Your task to perform on an android device: Is it going to rain this weekend? Image 0: 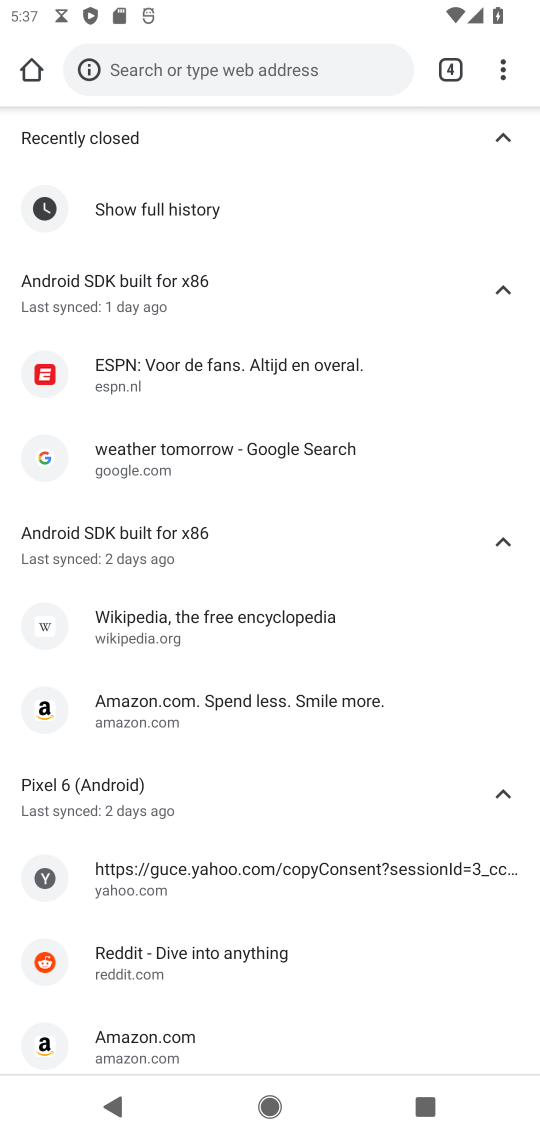
Step 0: click (516, 71)
Your task to perform on an android device: Is it going to rain this weekend? Image 1: 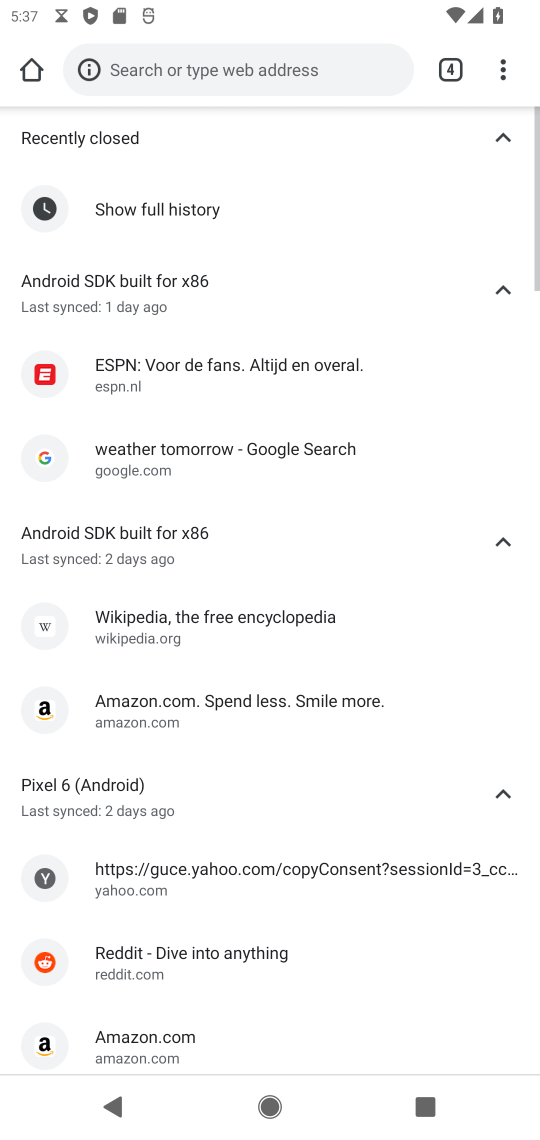
Step 1: click (506, 93)
Your task to perform on an android device: Is it going to rain this weekend? Image 2: 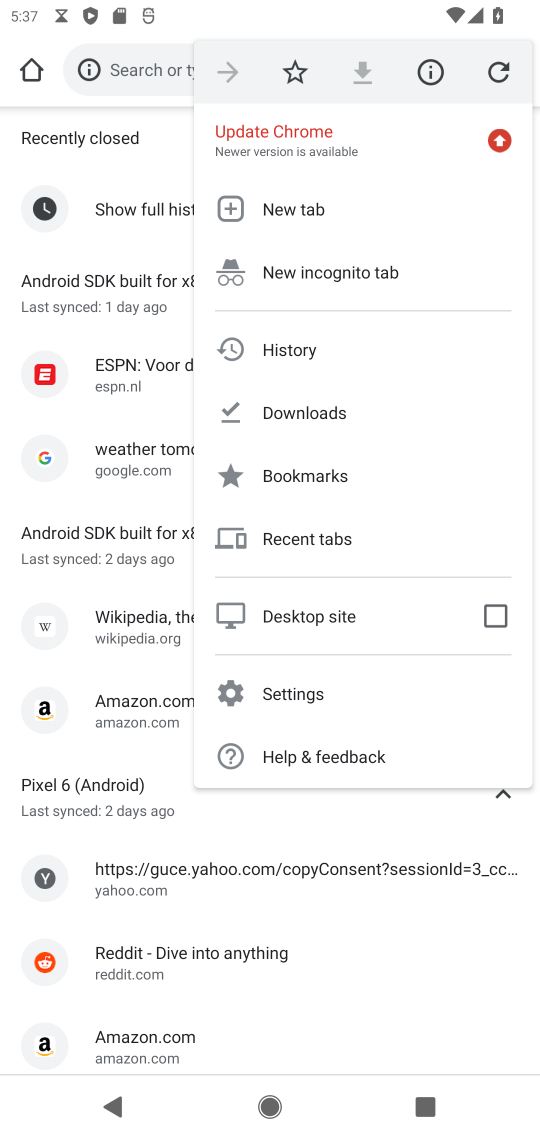
Step 2: click (130, 77)
Your task to perform on an android device: Is it going to rain this weekend? Image 3: 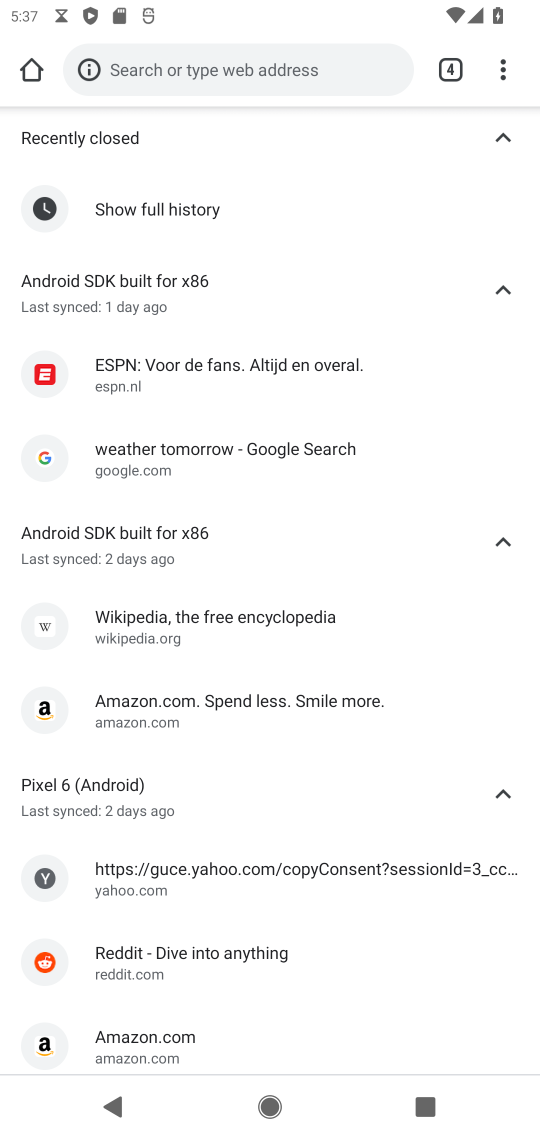
Step 3: click (267, 80)
Your task to perform on an android device: Is it going to rain this weekend? Image 4: 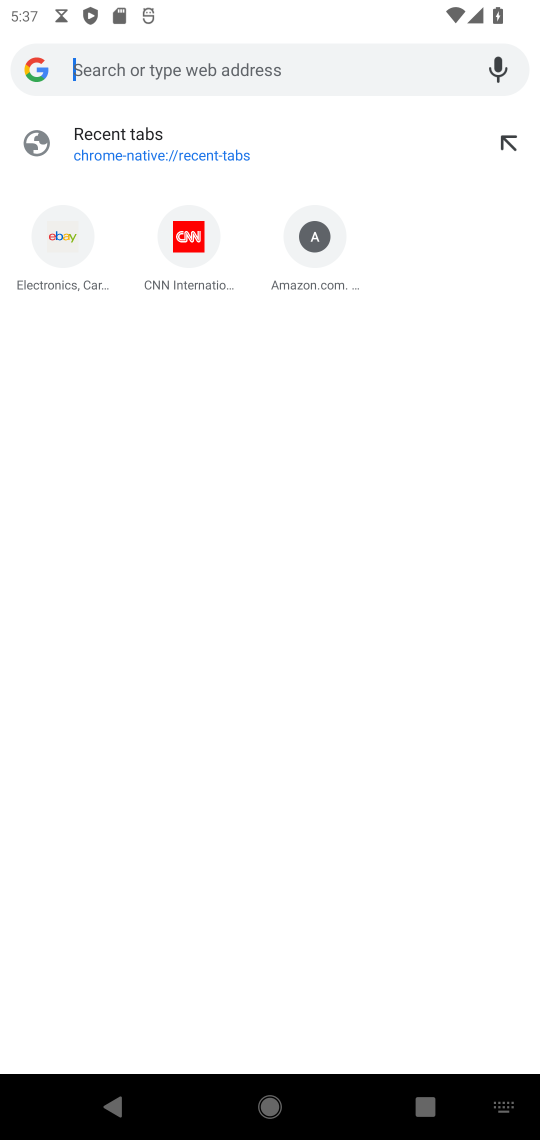
Step 4: type "Is it going to rain this weekend?"
Your task to perform on an android device: Is it going to rain this weekend? Image 5: 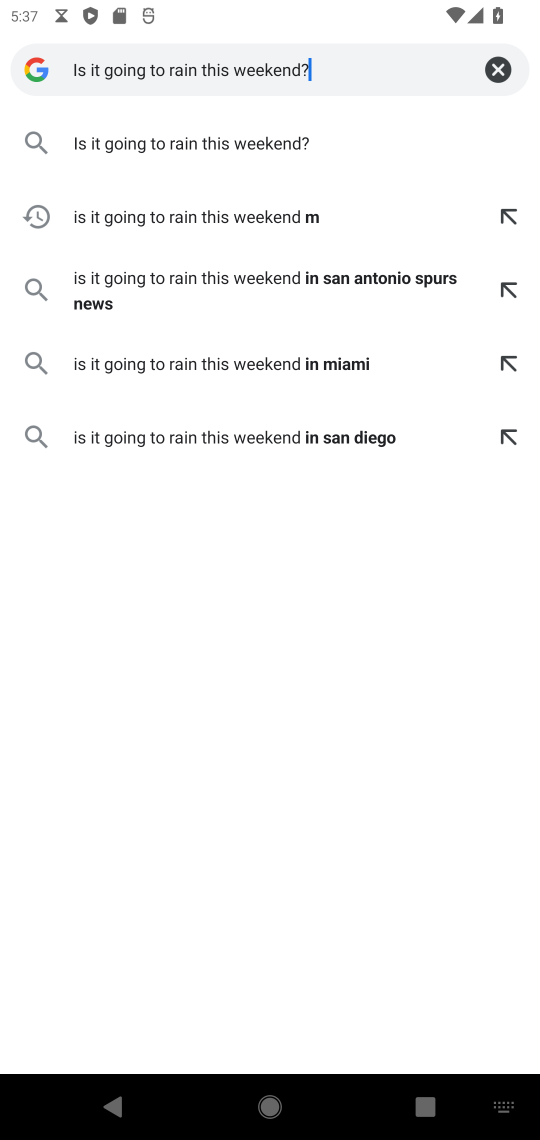
Step 5: click (249, 143)
Your task to perform on an android device: Is it going to rain this weekend? Image 6: 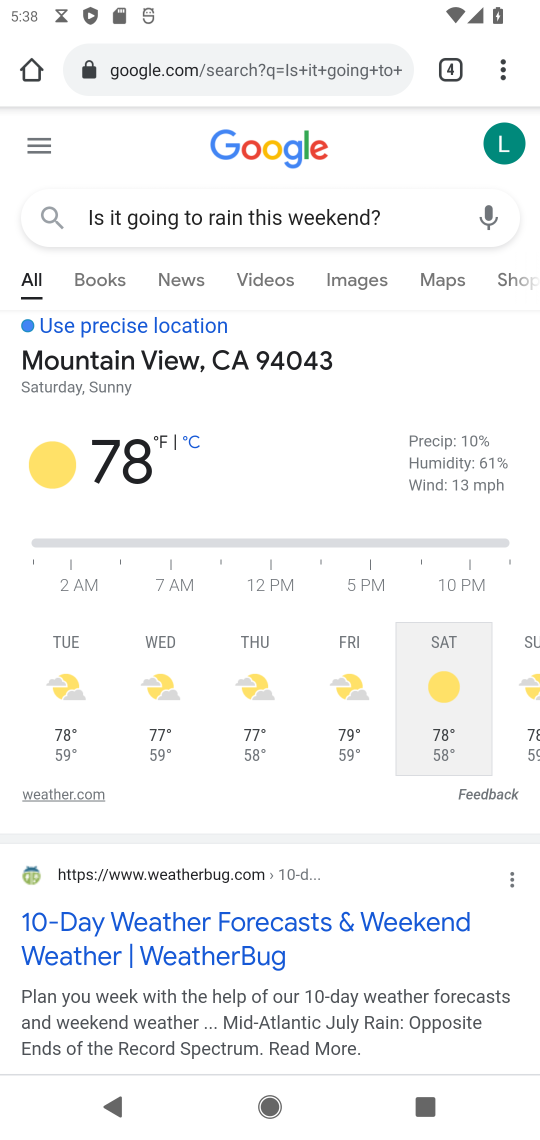
Step 6: task complete